Your task to perform on an android device: toggle show notifications on the lock screen Image 0: 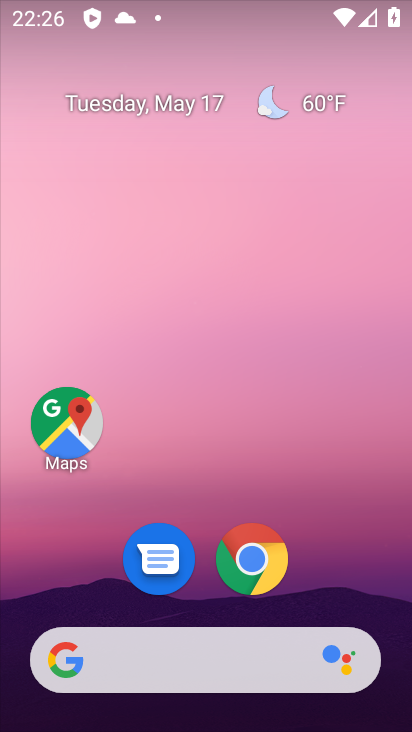
Step 0: drag from (351, 549) to (277, 187)
Your task to perform on an android device: toggle show notifications on the lock screen Image 1: 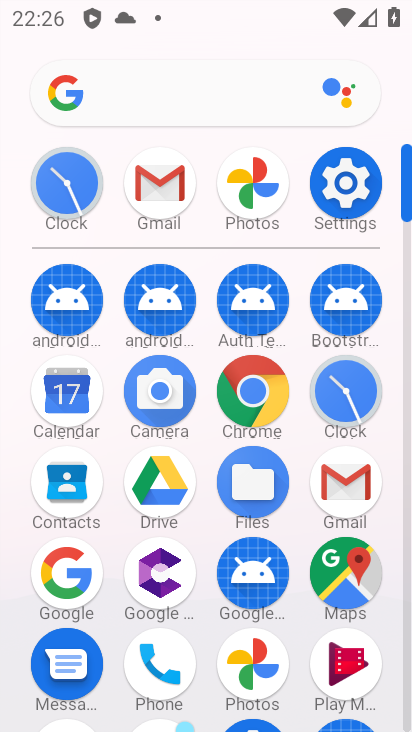
Step 1: click (340, 178)
Your task to perform on an android device: toggle show notifications on the lock screen Image 2: 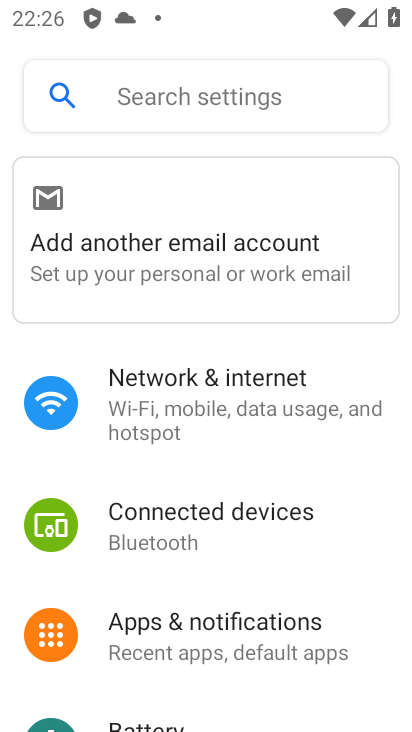
Step 2: click (237, 618)
Your task to perform on an android device: toggle show notifications on the lock screen Image 3: 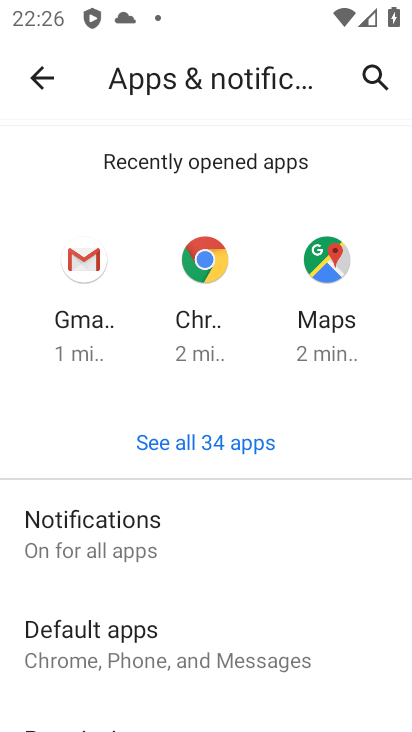
Step 3: drag from (241, 582) to (262, 246)
Your task to perform on an android device: toggle show notifications on the lock screen Image 4: 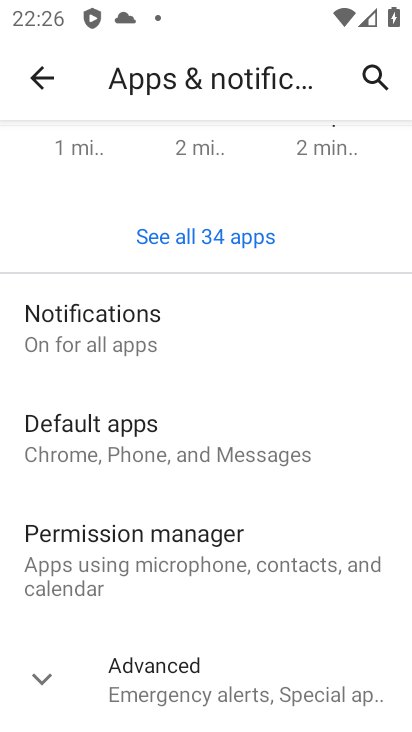
Step 4: click (126, 340)
Your task to perform on an android device: toggle show notifications on the lock screen Image 5: 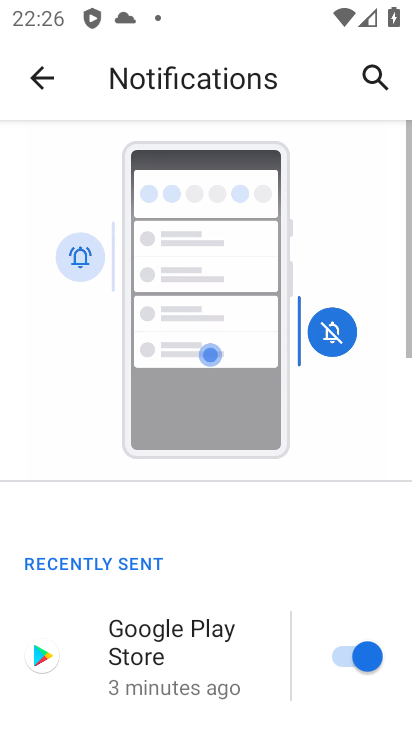
Step 5: drag from (284, 604) to (190, 188)
Your task to perform on an android device: toggle show notifications on the lock screen Image 6: 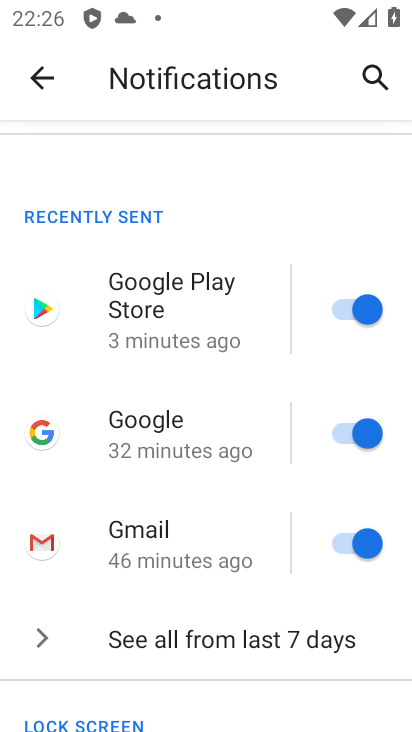
Step 6: drag from (233, 618) to (225, 276)
Your task to perform on an android device: toggle show notifications on the lock screen Image 7: 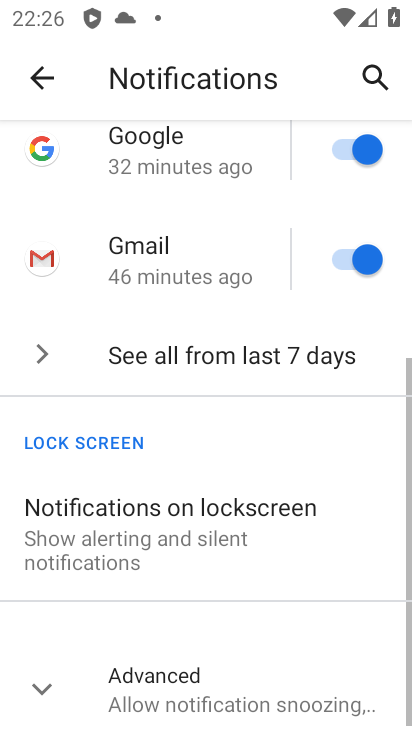
Step 7: click (209, 231)
Your task to perform on an android device: toggle show notifications on the lock screen Image 8: 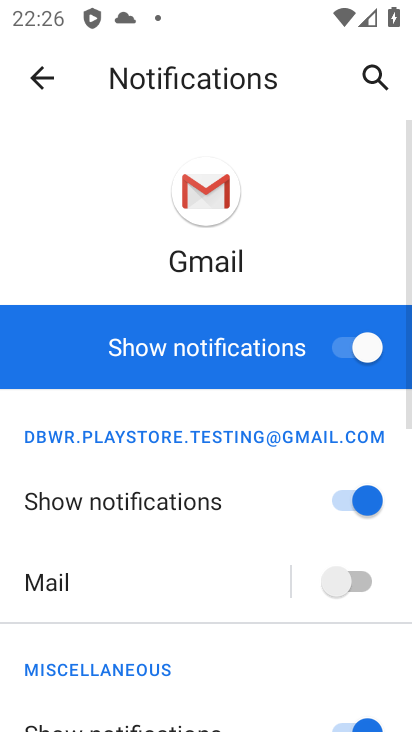
Step 8: click (38, 68)
Your task to perform on an android device: toggle show notifications on the lock screen Image 9: 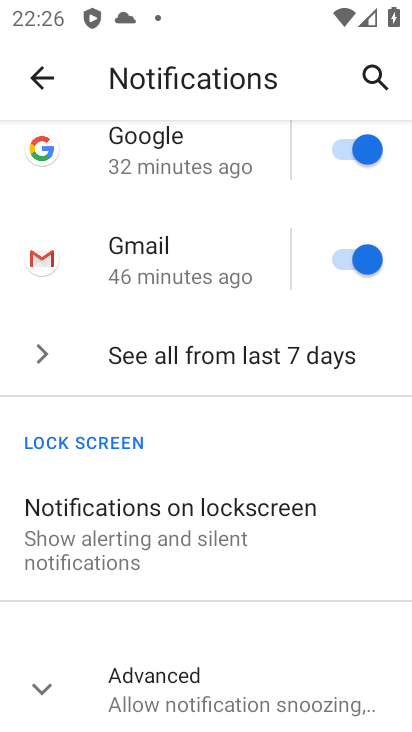
Step 9: click (177, 538)
Your task to perform on an android device: toggle show notifications on the lock screen Image 10: 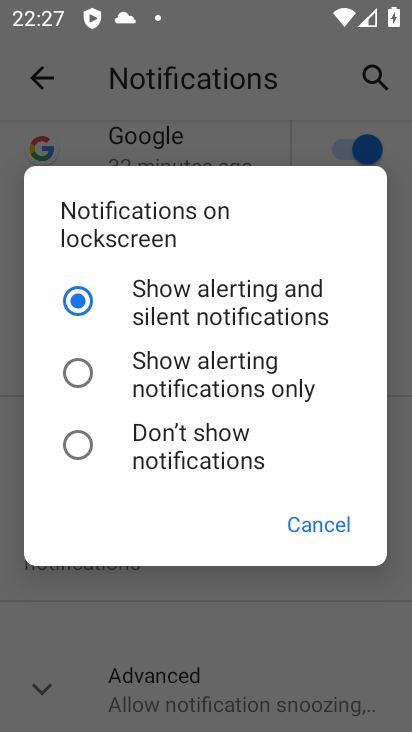
Step 10: click (245, 372)
Your task to perform on an android device: toggle show notifications on the lock screen Image 11: 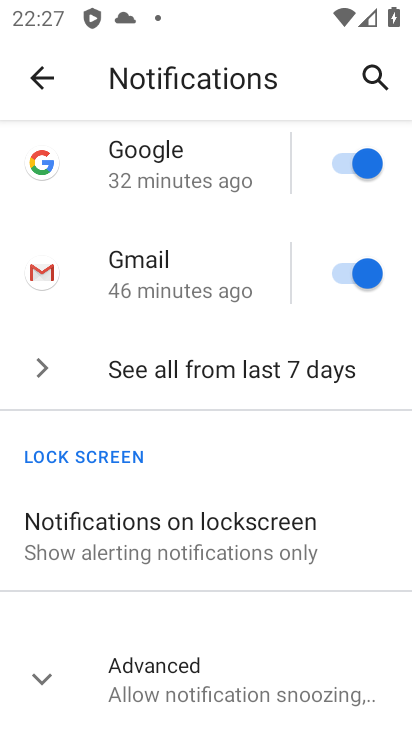
Step 11: task complete